Your task to perform on an android device: open chrome privacy settings Image 0: 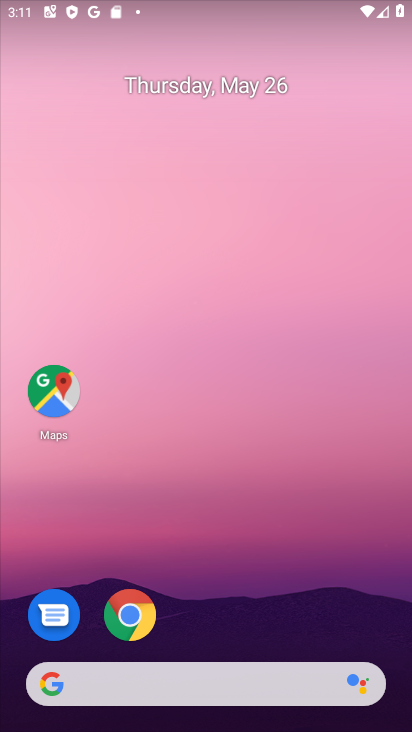
Step 0: click (138, 608)
Your task to perform on an android device: open chrome privacy settings Image 1: 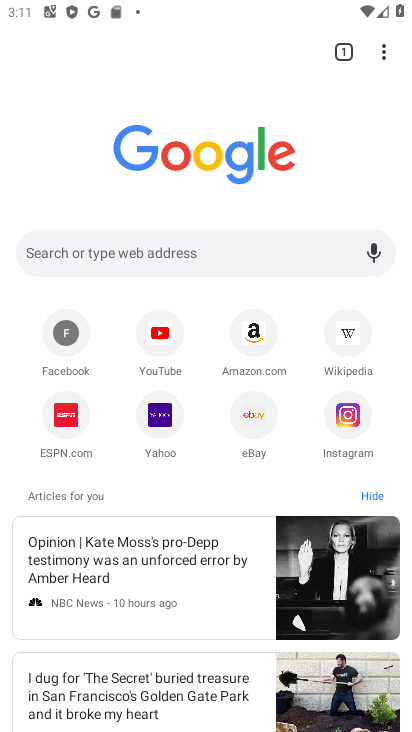
Step 1: click (384, 57)
Your task to perform on an android device: open chrome privacy settings Image 2: 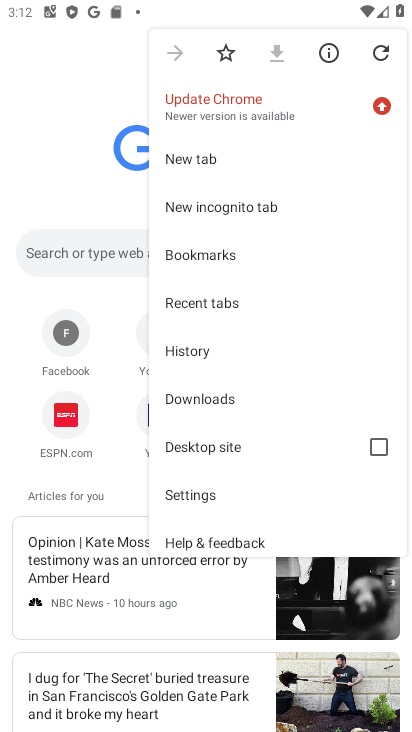
Step 2: click (213, 495)
Your task to perform on an android device: open chrome privacy settings Image 3: 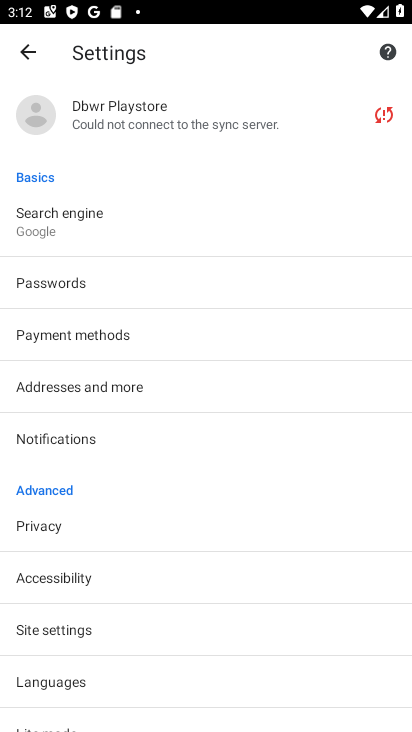
Step 3: click (64, 533)
Your task to perform on an android device: open chrome privacy settings Image 4: 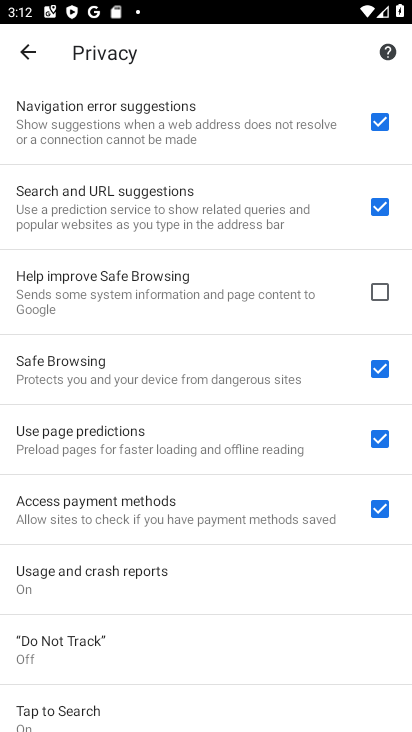
Step 4: task complete